Your task to perform on an android device: set default search engine in the chrome app Image 0: 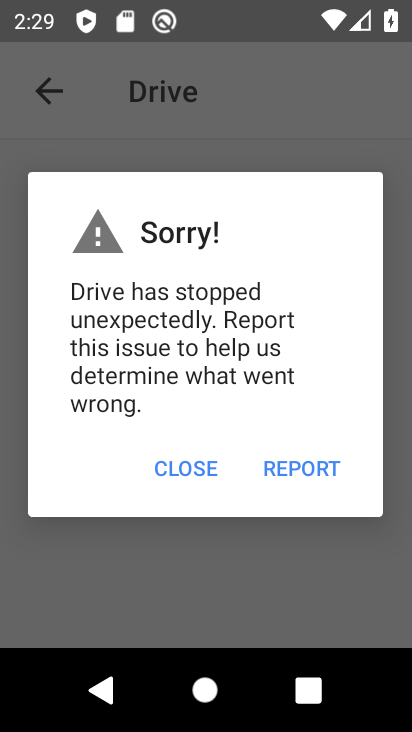
Step 0: press home button
Your task to perform on an android device: set default search engine in the chrome app Image 1: 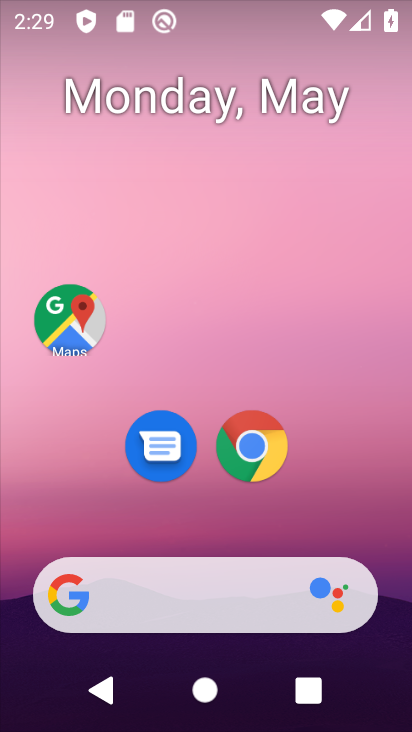
Step 1: click (252, 430)
Your task to perform on an android device: set default search engine in the chrome app Image 2: 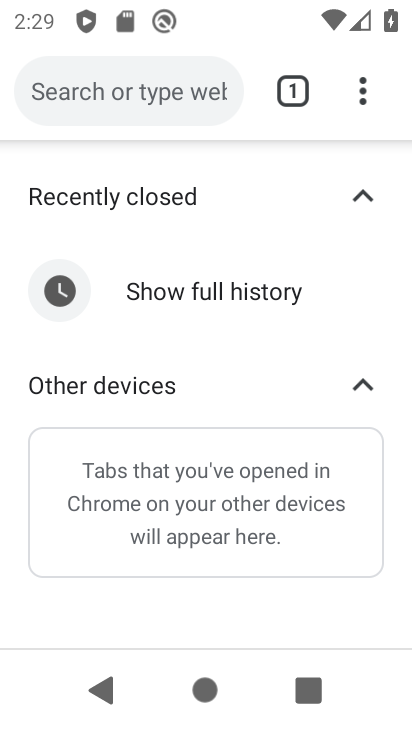
Step 2: click (366, 82)
Your task to perform on an android device: set default search engine in the chrome app Image 3: 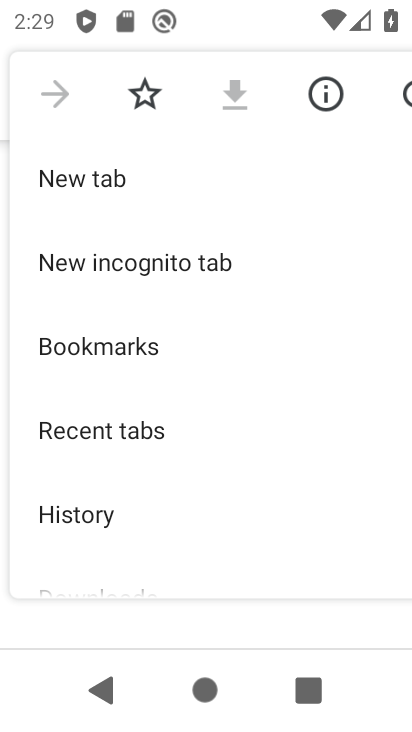
Step 3: drag from (107, 552) to (265, 185)
Your task to perform on an android device: set default search engine in the chrome app Image 4: 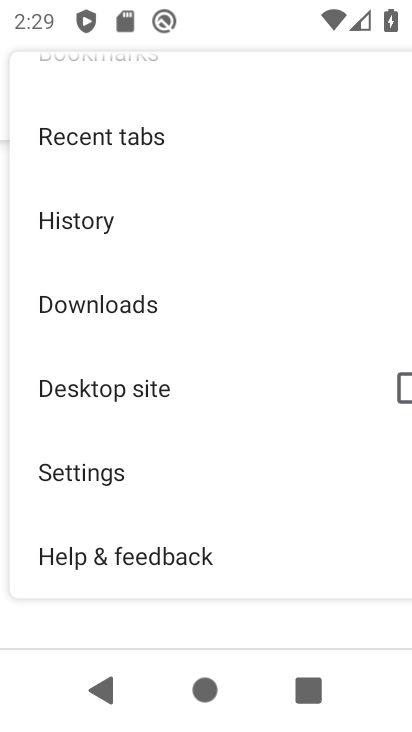
Step 4: click (137, 463)
Your task to perform on an android device: set default search engine in the chrome app Image 5: 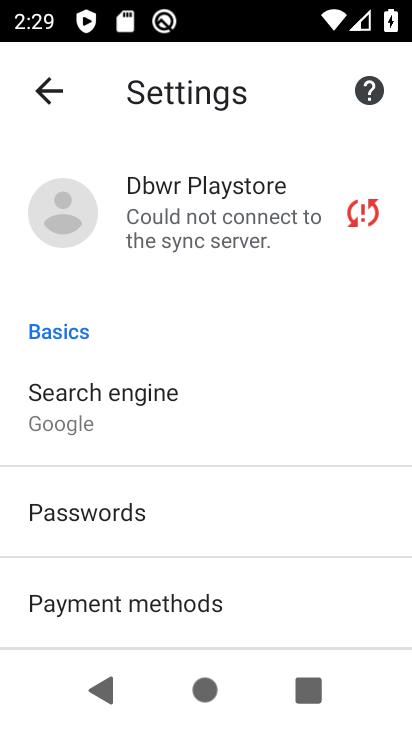
Step 5: click (110, 421)
Your task to perform on an android device: set default search engine in the chrome app Image 6: 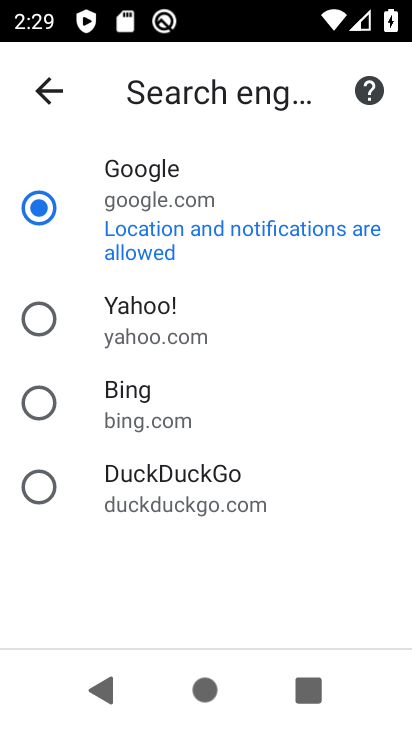
Step 6: click (110, 421)
Your task to perform on an android device: set default search engine in the chrome app Image 7: 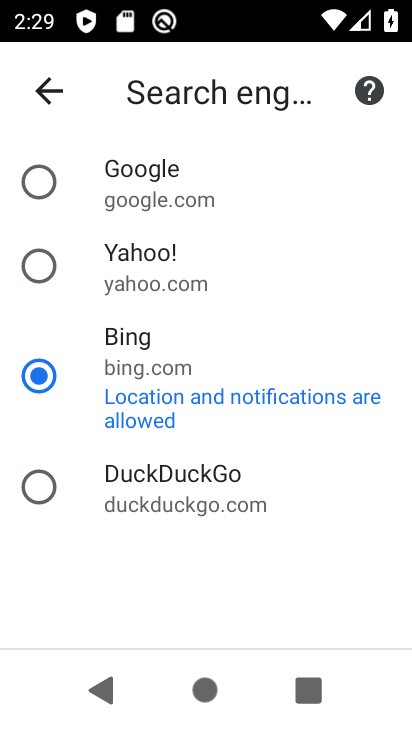
Step 7: task complete